Your task to perform on an android device: Add "beats solo 3" to the cart on bestbuy.com Image 0: 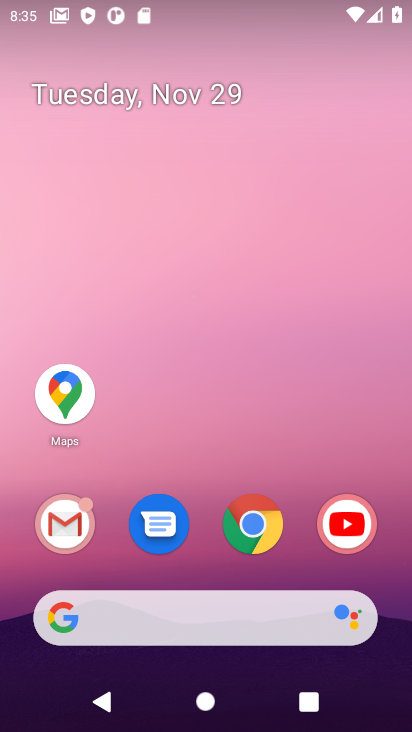
Step 0: click (252, 519)
Your task to perform on an android device: Add "beats solo 3" to the cart on bestbuy.com Image 1: 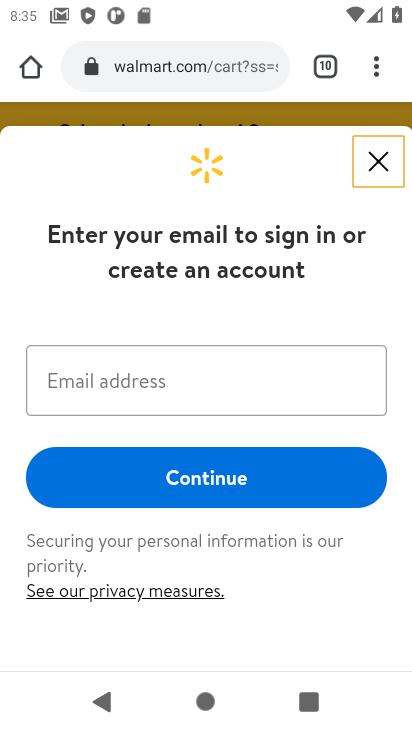
Step 1: click (181, 66)
Your task to perform on an android device: Add "beats solo 3" to the cart on bestbuy.com Image 2: 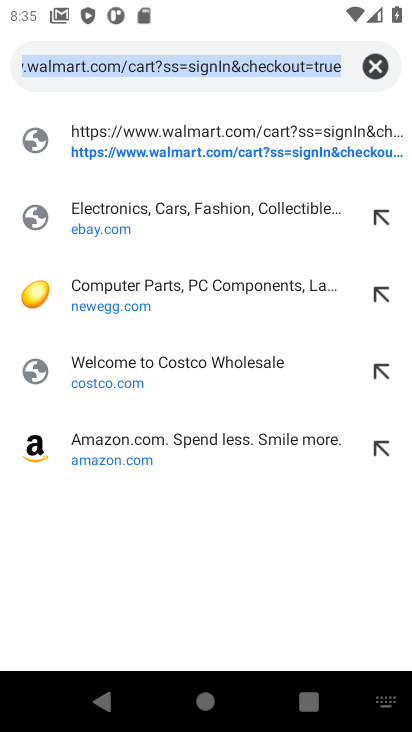
Step 2: type "bestbuy.com"
Your task to perform on an android device: Add "beats solo 3" to the cart on bestbuy.com Image 3: 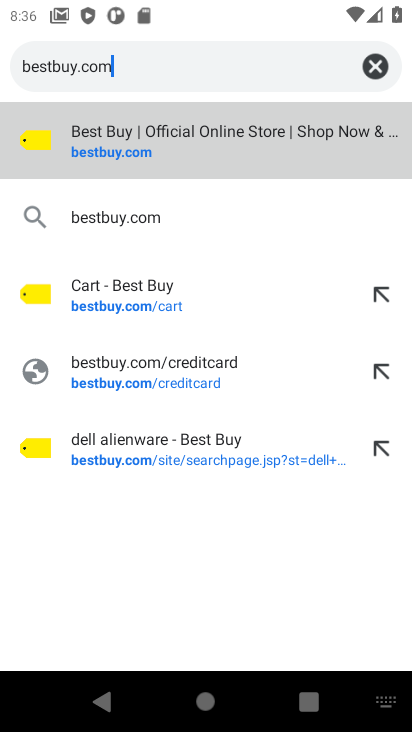
Step 3: click (89, 146)
Your task to perform on an android device: Add "beats solo 3" to the cart on bestbuy.com Image 4: 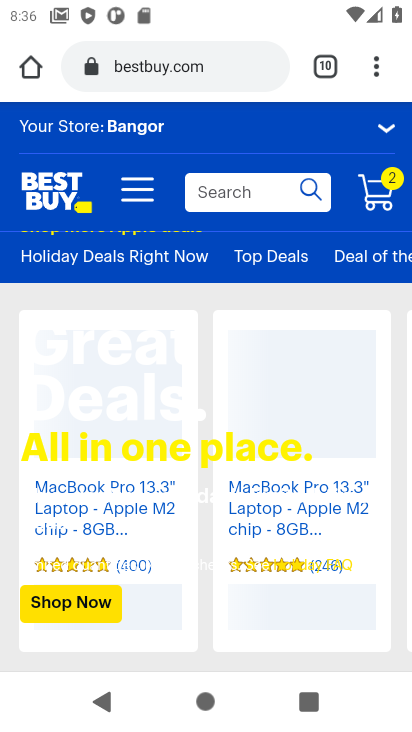
Step 4: click (227, 200)
Your task to perform on an android device: Add "beats solo 3" to the cart on bestbuy.com Image 5: 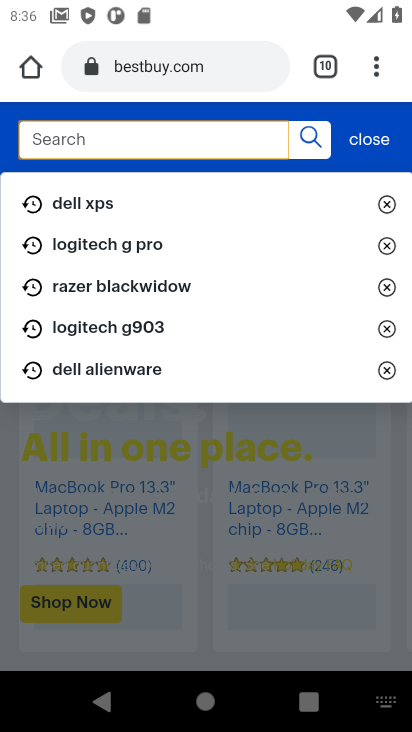
Step 5: type "beats solo 3"
Your task to perform on an android device: Add "beats solo 3" to the cart on bestbuy.com Image 6: 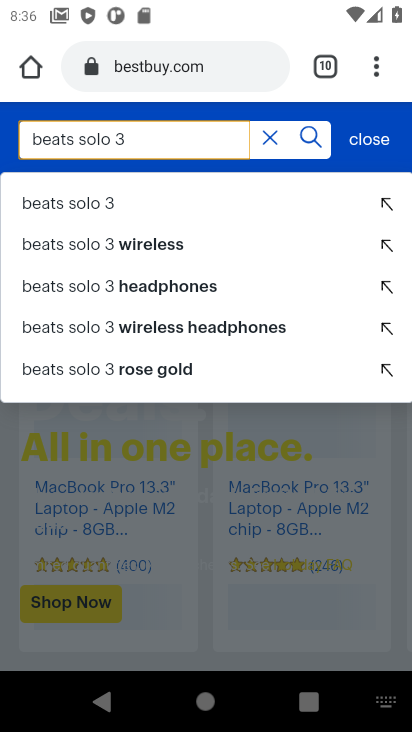
Step 6: click (83, 209)
Your task to perform on an android device: Add "beats solo 3" to the cart on bestbuy.com Image 7: 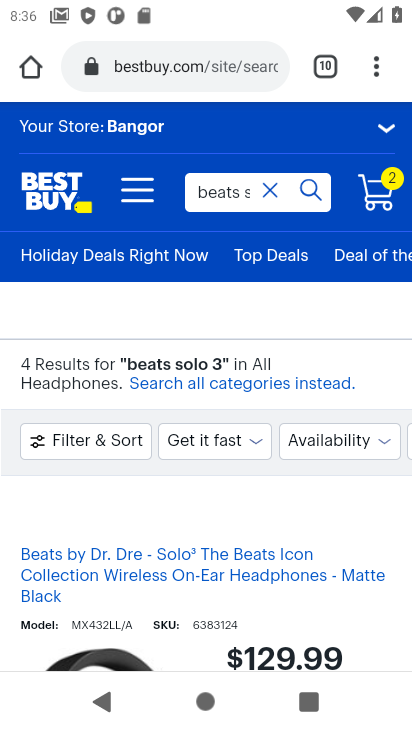
Step 7: drag from (164, 538) to (150, 319)
Your task to perform on an android device: Add "beats solo 3" to the cart on bestbuy.com Image 8: 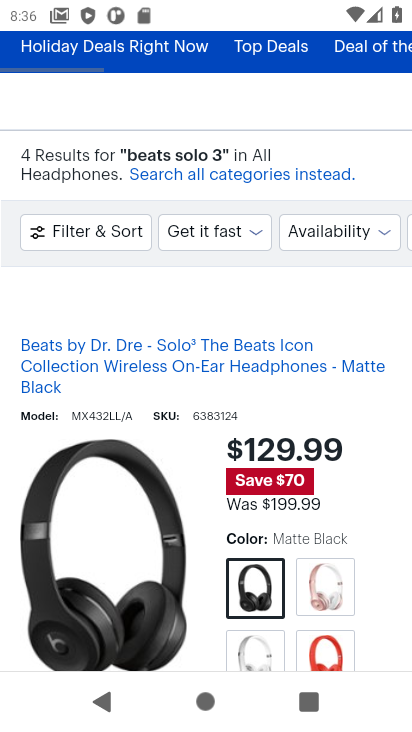
Step 8: drag from (150, 451) to (117, 297)
Your task to perform on an android device: Add "beats solo 3" to the cart on bestbuy.com Image 9: 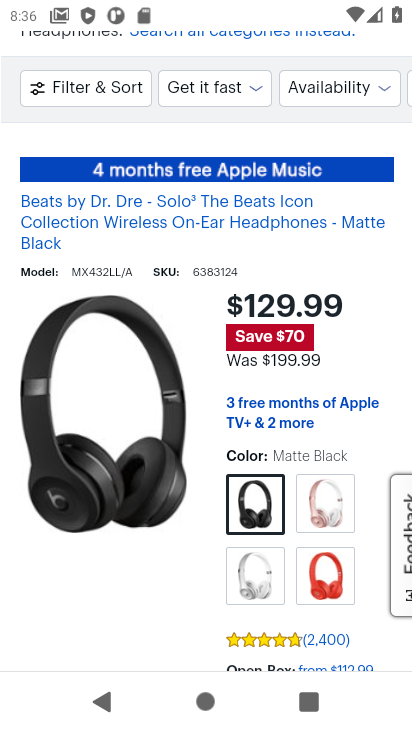
Step 9: drag from (153, 501) to (171, 258)
Your task to perform on an android device: Add "beats solo 3" to the cart on bestbuy.com Image 10: 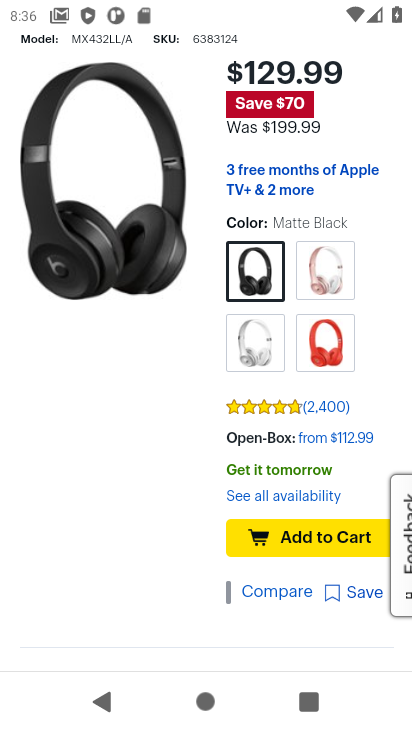
Step 10: click (323, 538)
Your task to perform on an android device: Add "beats solo 3" to the cart on bestbuy.com Image 11: 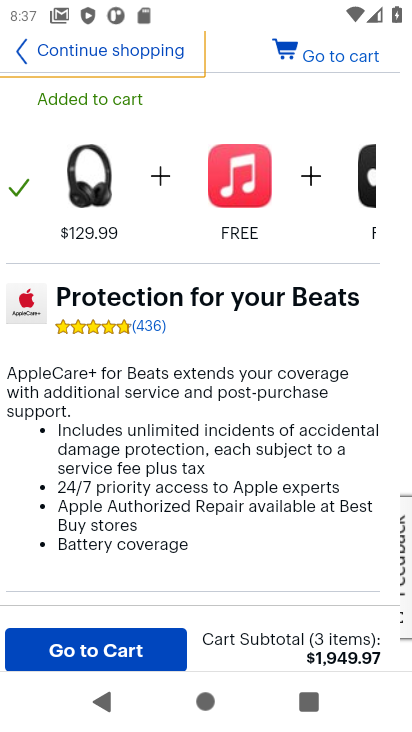
Step 11: task complete